Your task to perform on an android device: Go to settings Image 0: 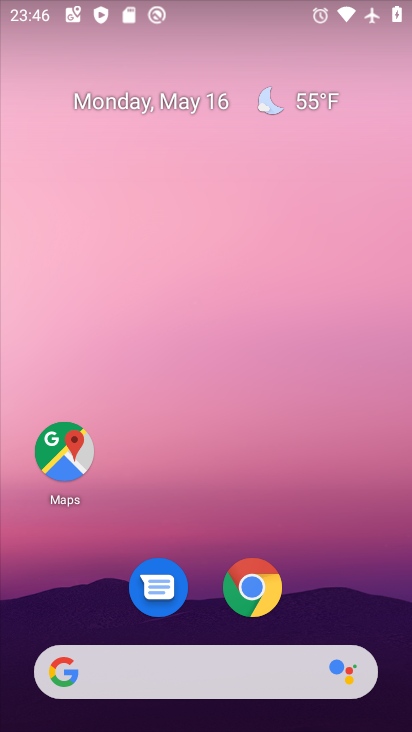
Step 0: drag from (290, 571) to (176, 4)
Your task to perform on an android device: Go to settings Image 1: 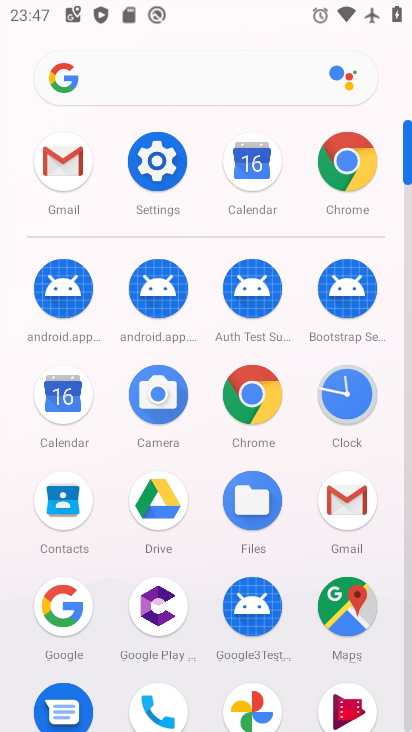
Step 1: click (155, 155)
Your task to perform on an android device: Go to settings Image 2: 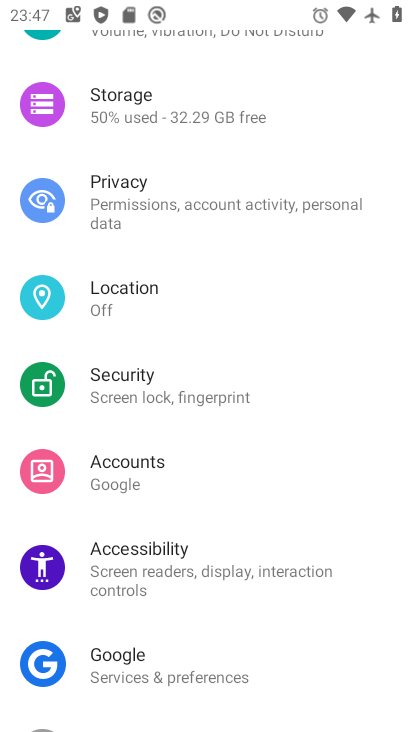
Step 2: task complete